Your task to perform on an android device: Open the map Image 0: 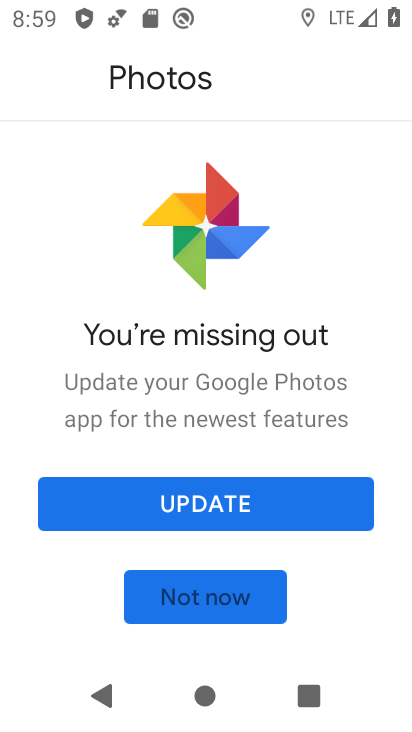
Step 0: press back button
Your task to perform on an android device: Open the map Image 1: 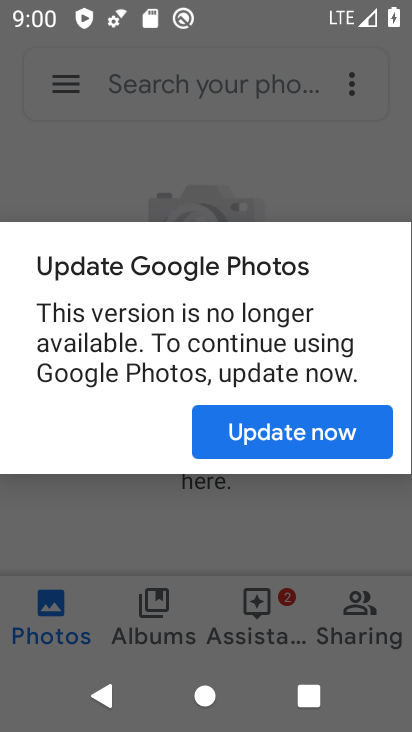
Step 1: press home button
Your task to perform on an android device: Open the map Image 2: 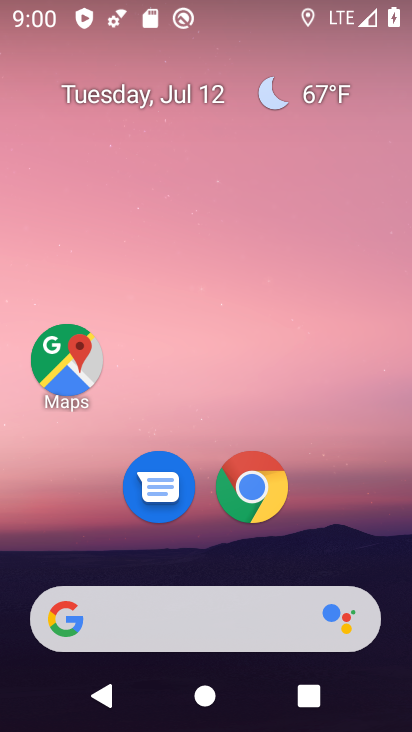
Step 2: click (76, 365)
Your task to perform on an android device: Open the map Image 3: 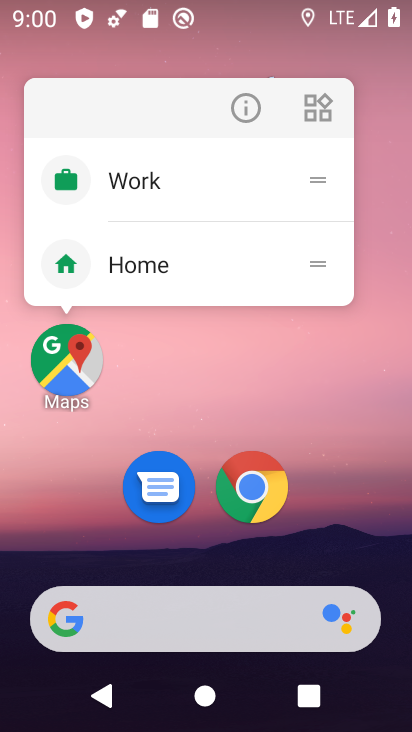
Step 3: click (63, 364)
Your task to perform on an android device: Open the map Image 4: 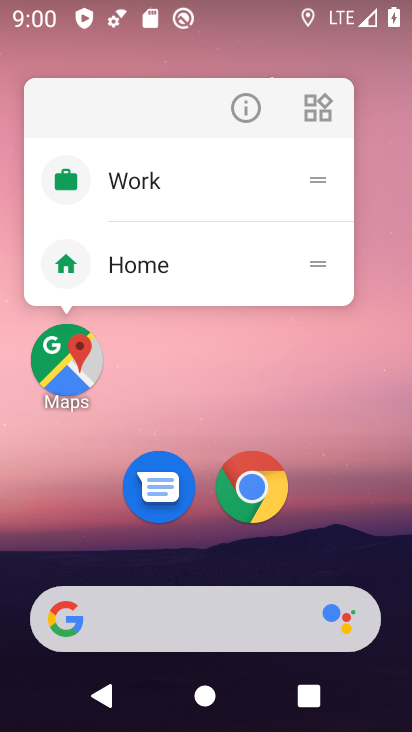
Step 4: click (60, 355)
Your task to perform on an android device: Open the map Image 5: 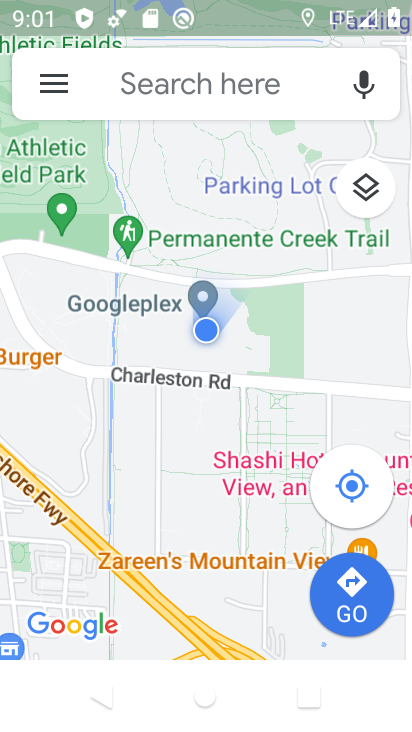
Step 5: task complete